Your task to perform on an android device: find photos in the google photos app Image 0: 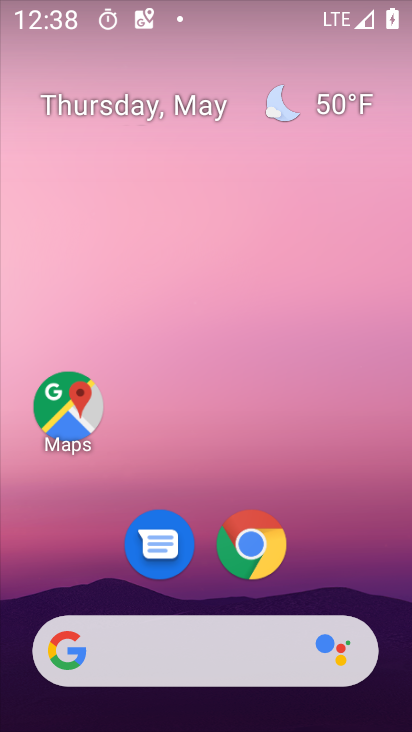
Step 0: drag from (183, 651) to (150, 126)
Your task to perform on an android device: find photos in the google photos app Image 1: 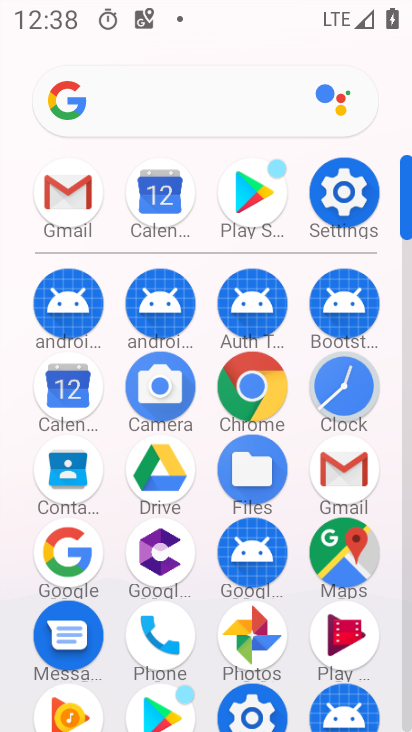
Step 1: click (258, 614)
Your task to perform on an android device: find photos in the google photos app Image 2: 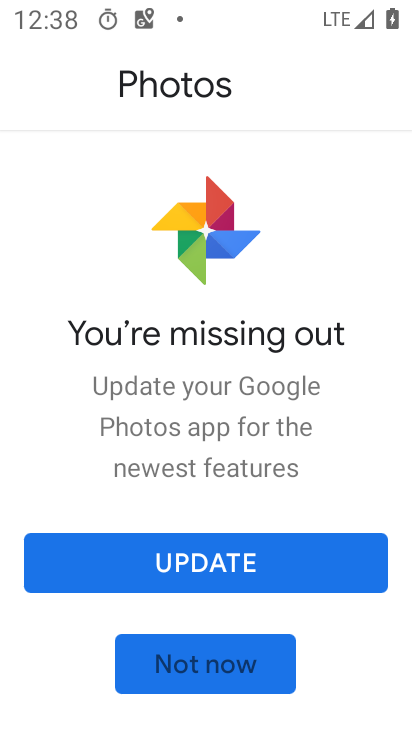
Step 2: click (200, 674)
Your task to perform on an android device: find photos in the google photos app Image 3: 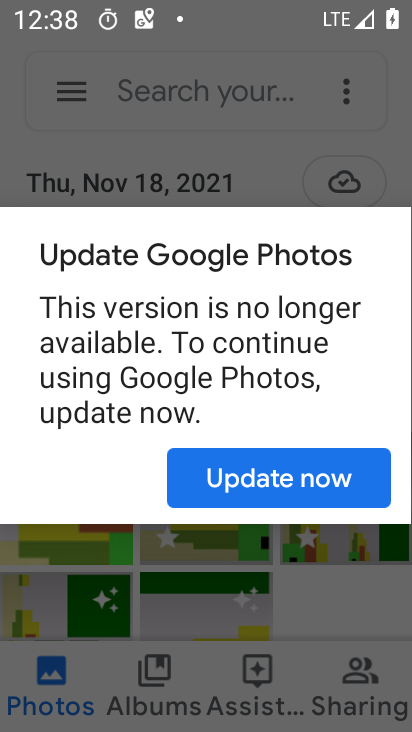
Step 3: click (226, 490)
Your task to perform on an android device: find photos in the google photos app Image 4: 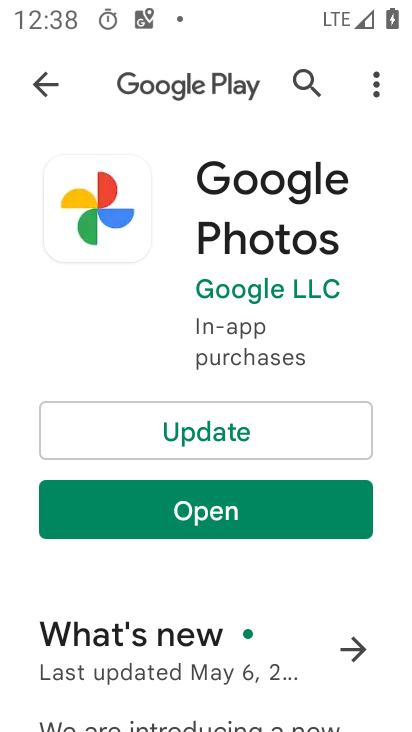
Step 4: click (186, 416)
Your task to perform on an android device: find photos in the google photos app Image 5: 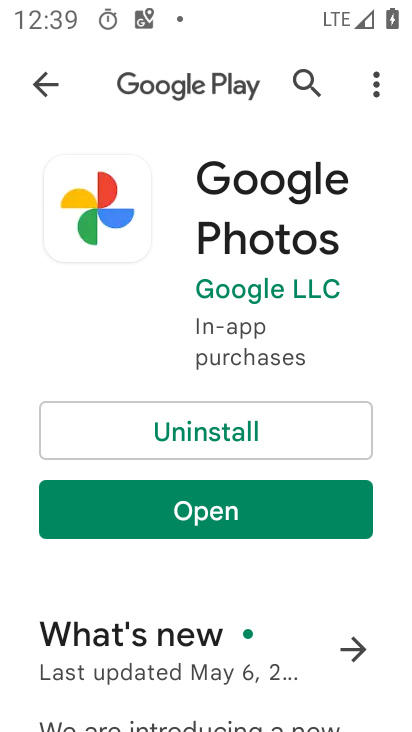
Step 5: click (285, 502)
Your task to perform on an android device: find photos in the google photos app Image 6: 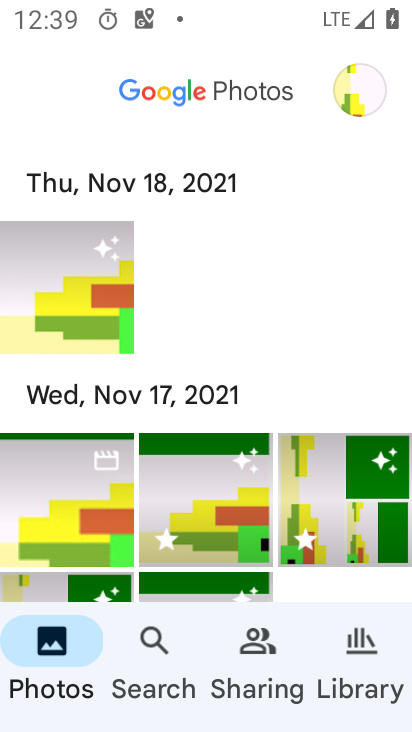
Step 6: task complete